Your task to perform on an android device: Open Google Image 0: 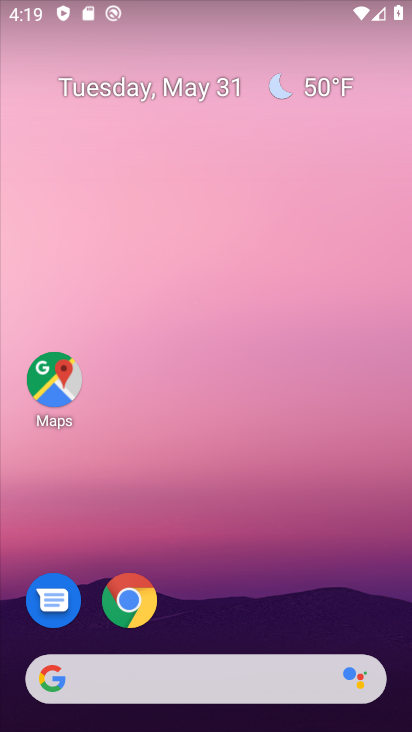
Step 0: drag from (231, 607) to (198, 143)
Your task to perform on an android device: Open Google Image 1: 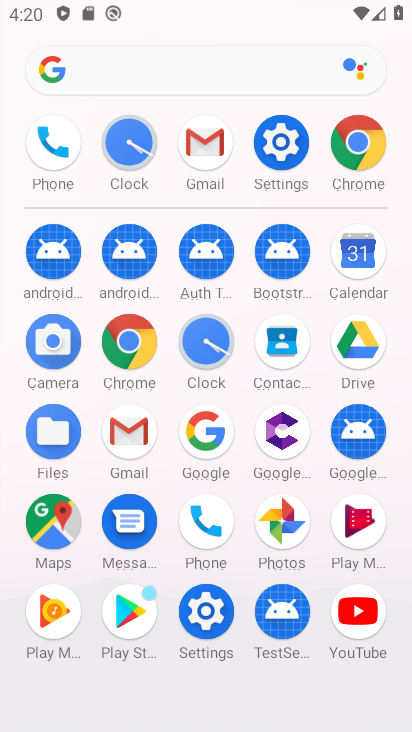
Step 1: click (200, 429)
Your task to perform on an android device: Open Google Image 2: 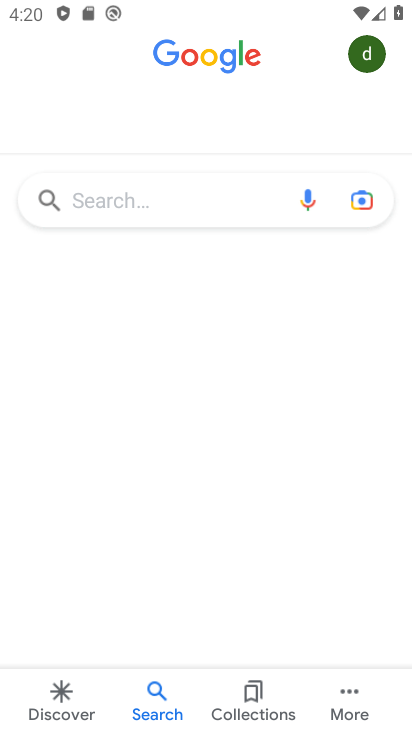
Step 2: task complete